Your task to perform on an android device: Open Android settings Image 0: 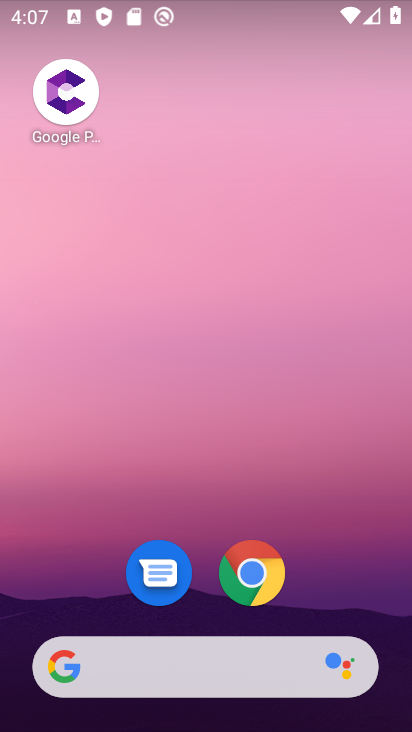
Step 0: drag from (253, 657) to (315, 10)
Your task to perform on an android device: Open Android settings Image 1: 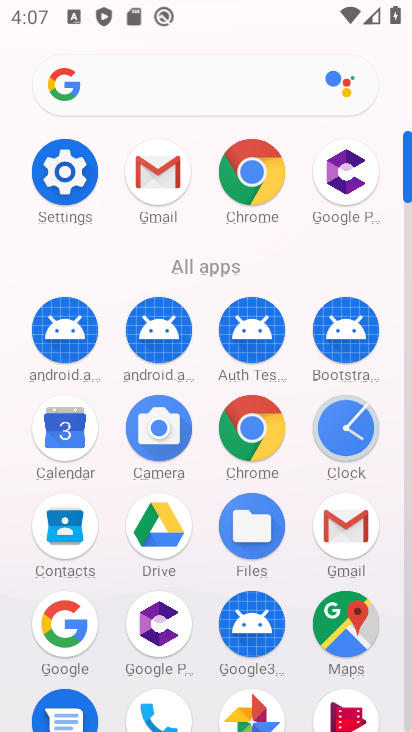
Step 1: click (65, 160)
Your task to perform on an android device: Open Android settings Image 2: 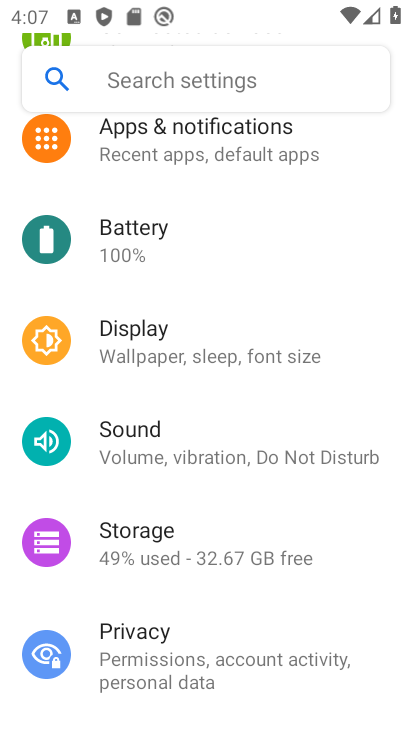
Step 2: drag from (158, 710) to (282, 1)
Your task to perform on an android device: Open Android settings Image 3: 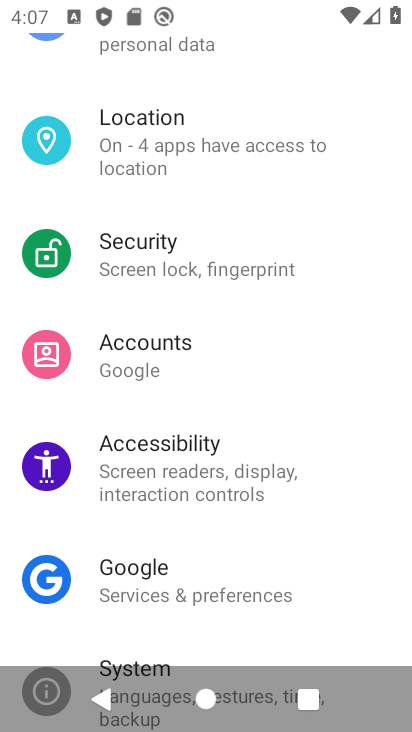
Step 3: drag from (200, 647) to (259, 163)
Your task to perform on an android device: Open Android settings Image 4: 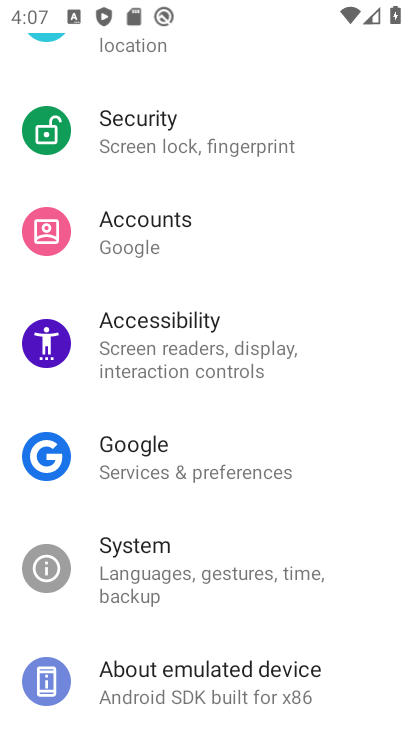
Step 4: click (189, 670)
Your task to perform on an android device: Open Android settings Image 5: 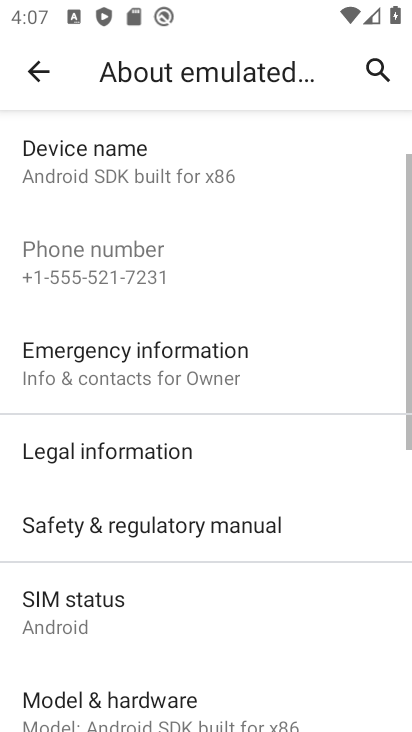
Step 5: task complete